Your task to perform on an android device: Search for the best way to get rid of a cold Image 0: 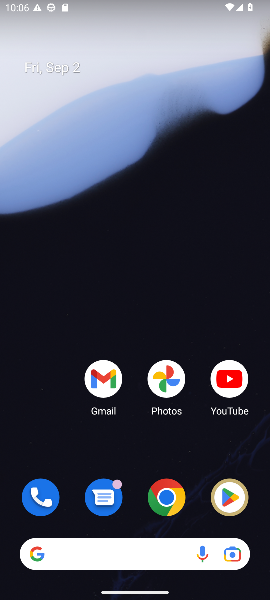
Step 0: click (167, 504)
Your task to perform on an android device: Search for the best way to get rid of a cold Image 1: 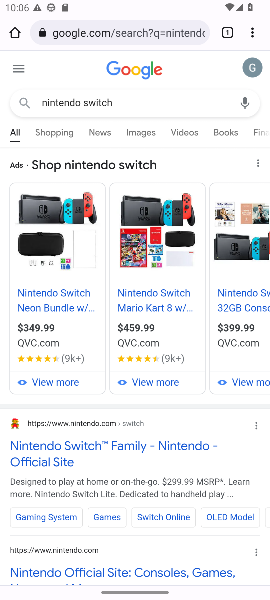
Step 1: click (126, 99)
Your task to perform on an android device: Search for the best way to get rid of a cold Image 2: 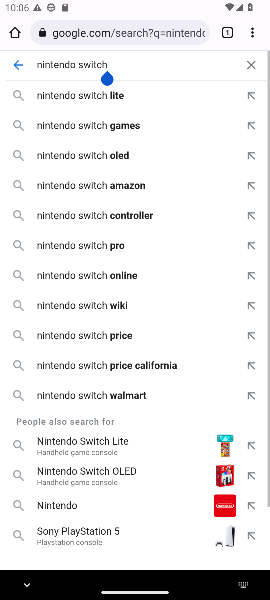
Step 2: click (245, 63)
Your task to perform on an android device: Search for the best way to get rid of a cold Image 3: 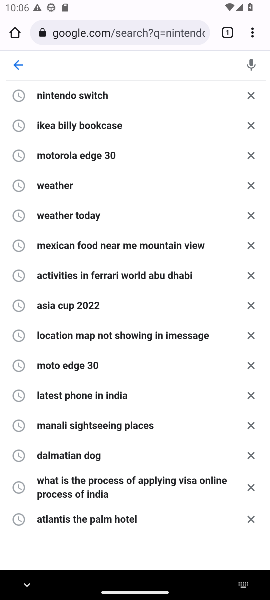
Step 3: type "best way to get rid of a cold"
Your task to perform on an android device: Search for the best way to get rid of a cold Image 4: 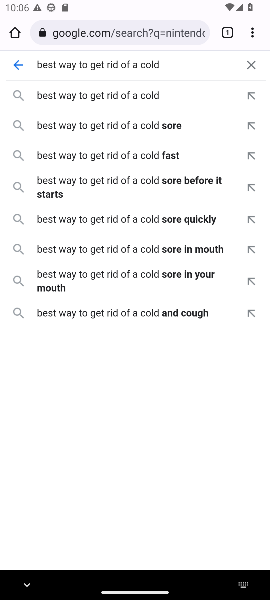
Step 4: click (165, 98)
Your task to perform on an android device: Search for the best way to get rid of a cold Image 5: 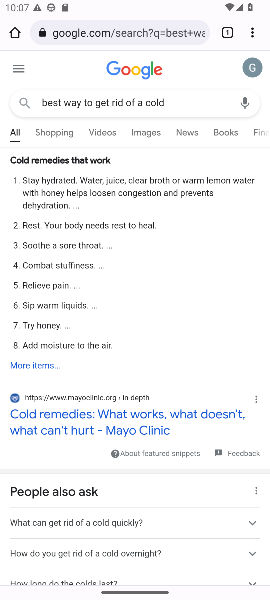
Step 5: task complete